Your task to perform on an android device: Search for sushi restaurants on Maps Image 0: 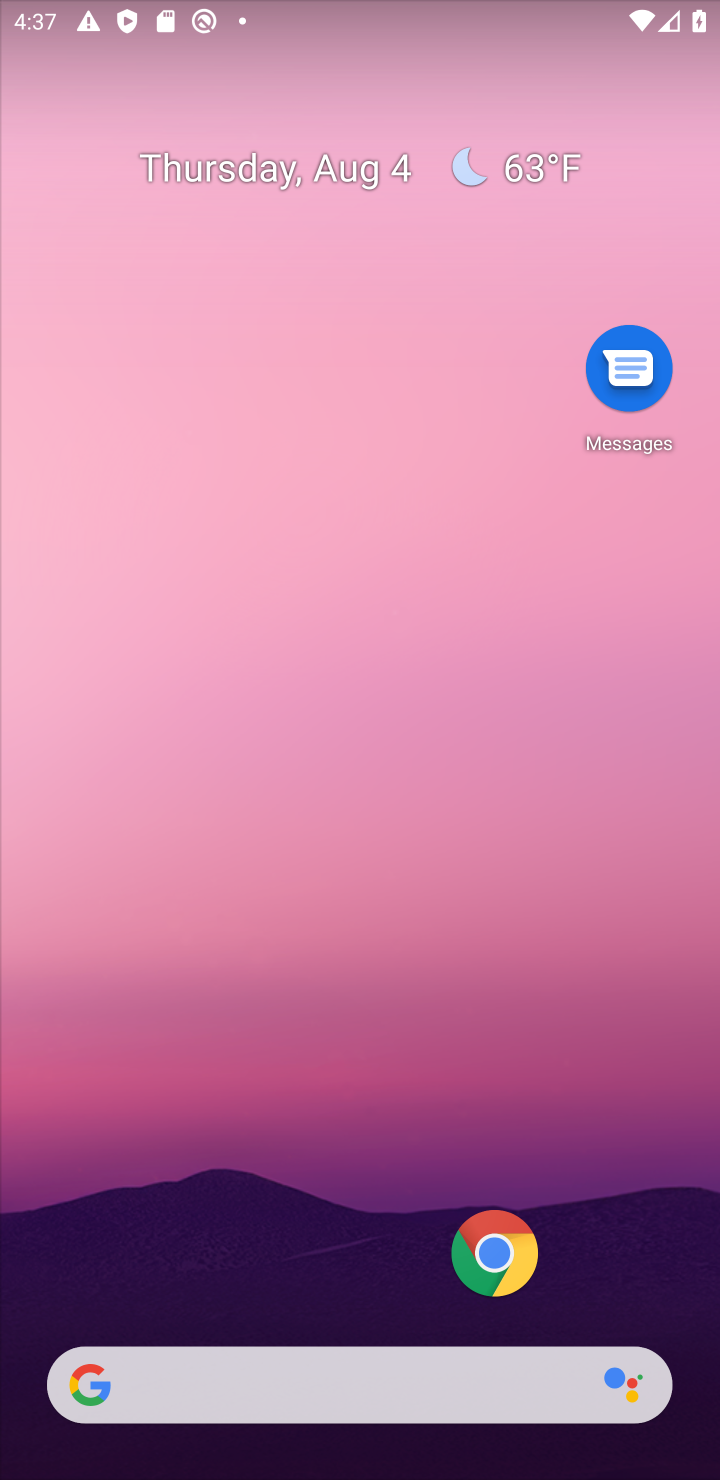
Step 0: drag from (297, 960) to (195, 104)
Your task to perform on an android device: Search for sushi restaurants on Maps Image 1: 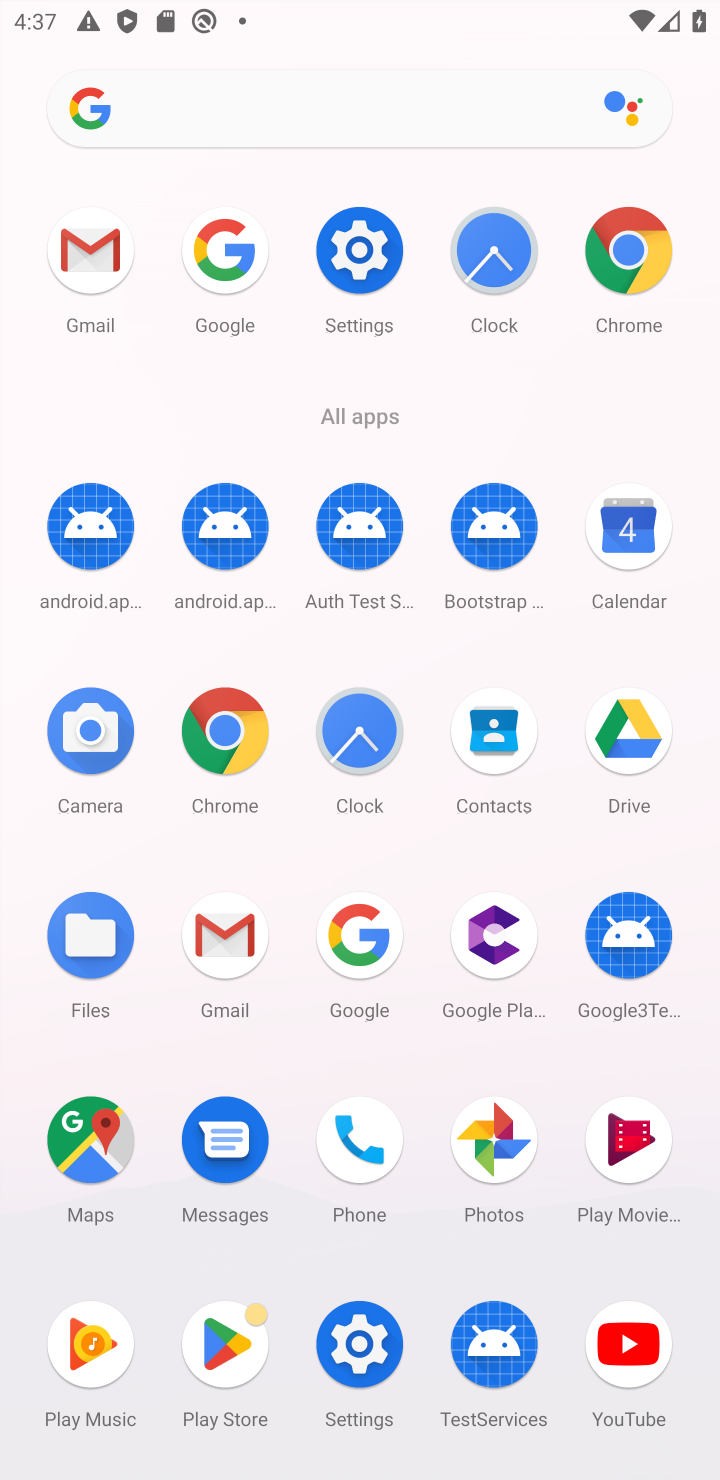
Step 1: click (89, 1141)
Your task to perform on an android device: Search for sushi restaurants on Maps Image 2: 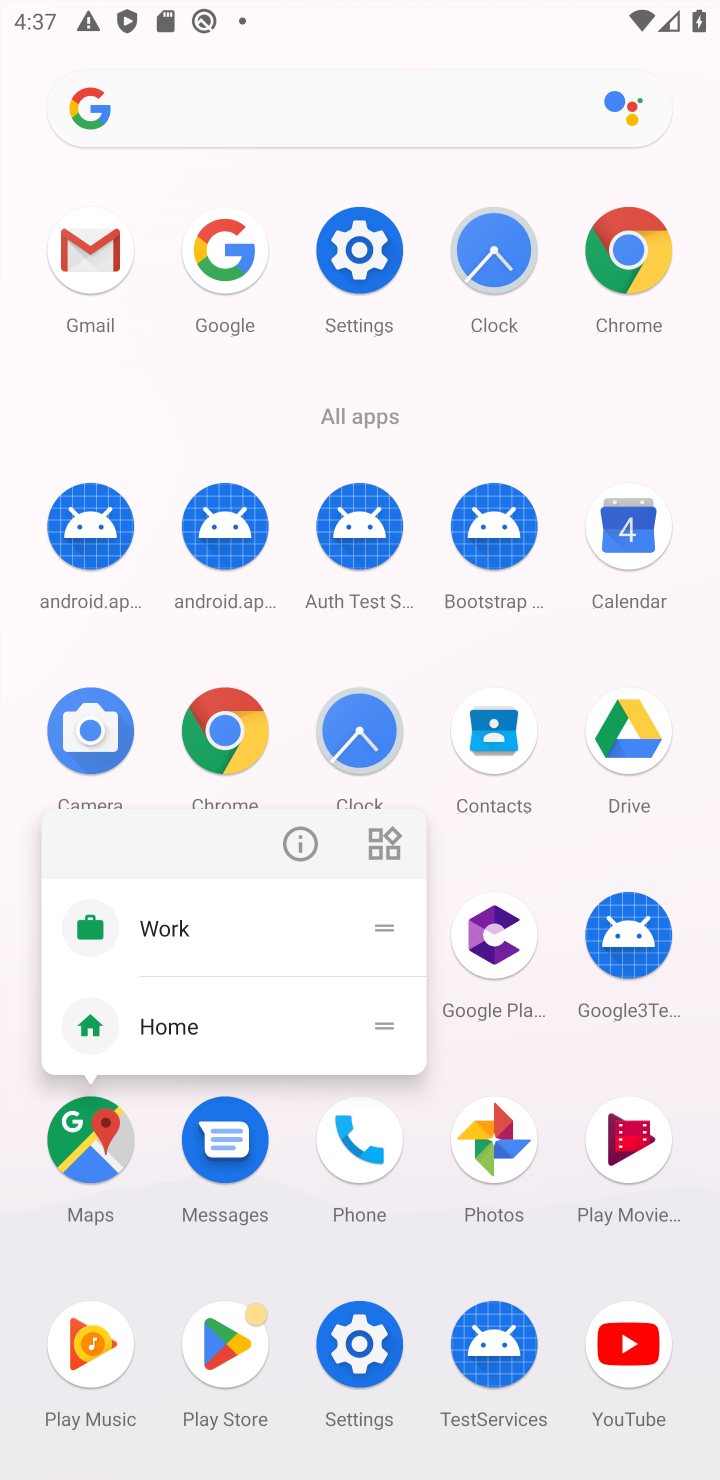
Step 2: click (89, 1141)
Your task to perform on an android device: Search for sushi restaurants on Maps Image 3: 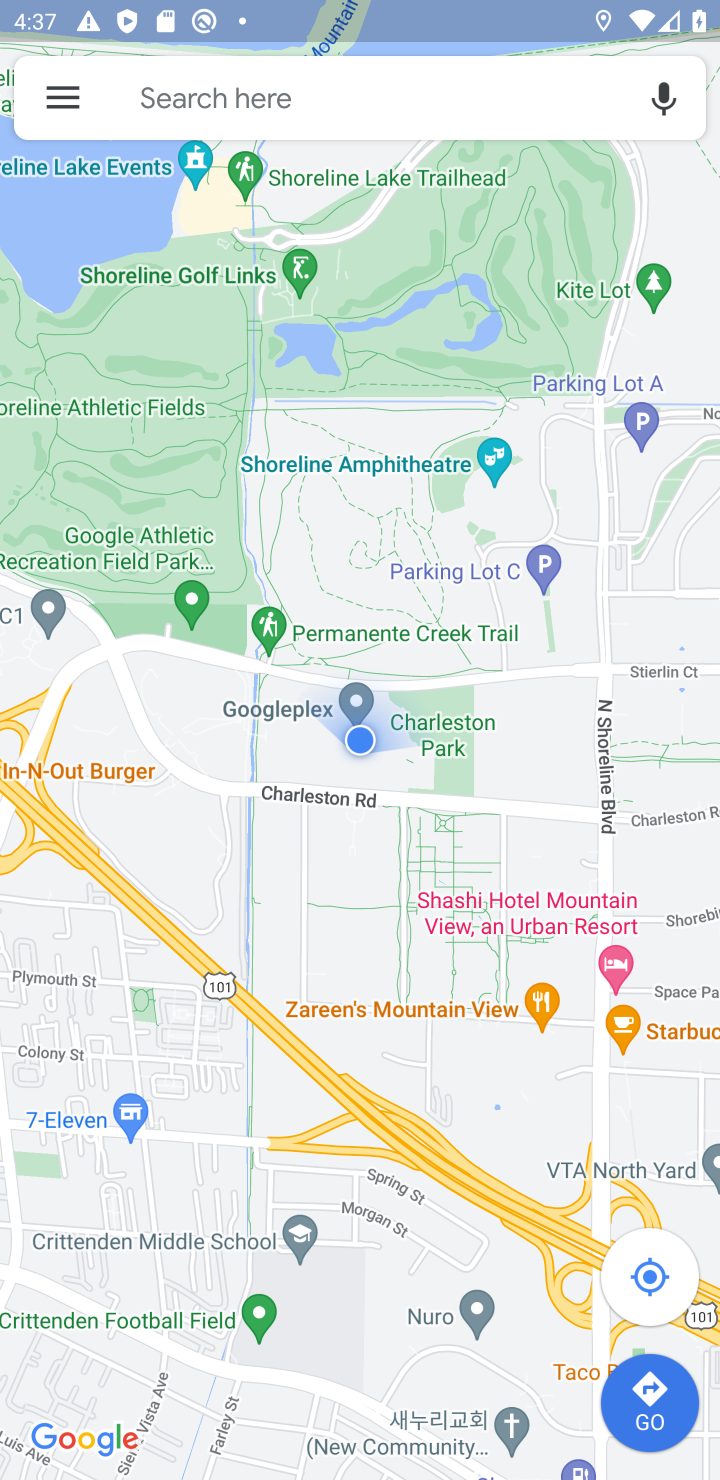
Step 3: click (259, 109)
Your task to perform on an android device: Search for sushi restaurants on Maps Image 4: 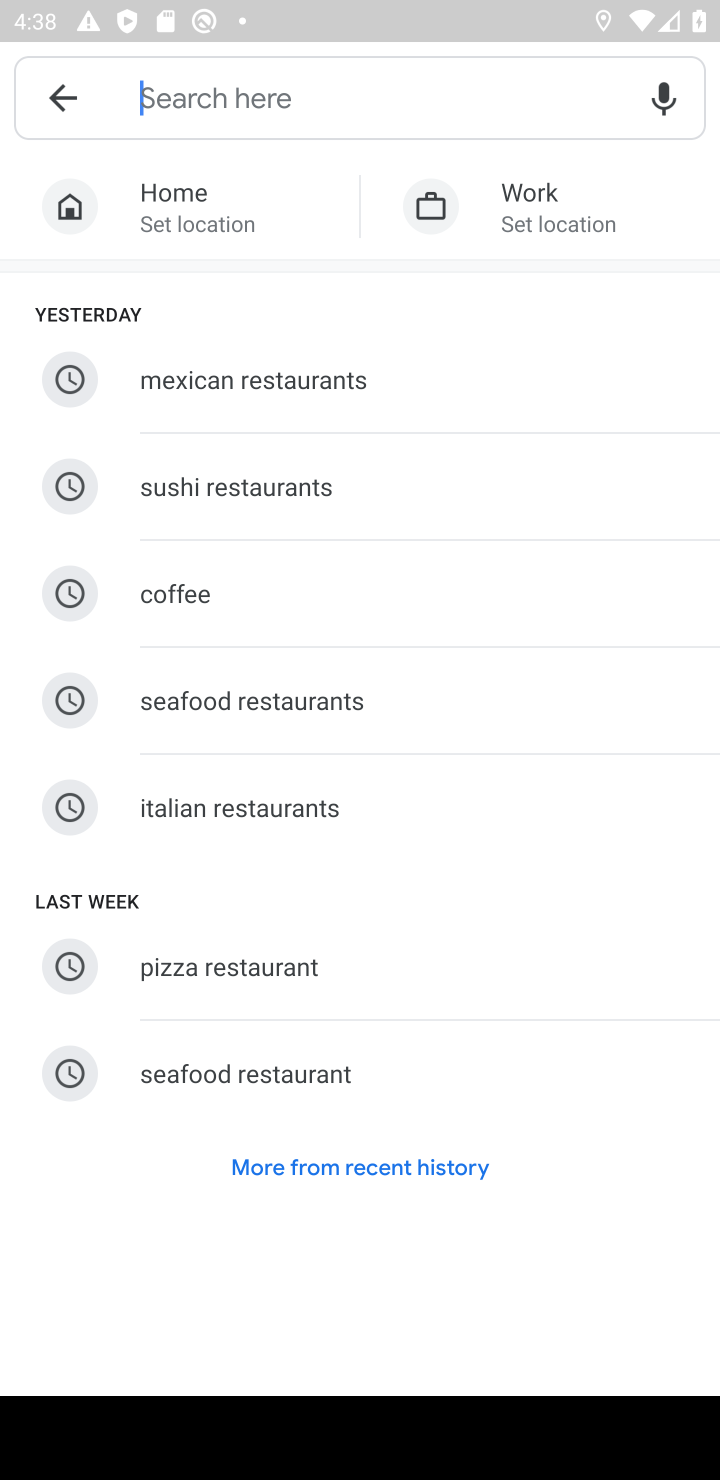
Step 4: click (200, 504)
Your task to perform on an android device: Search for sushi restaurants on Maps Image 5: 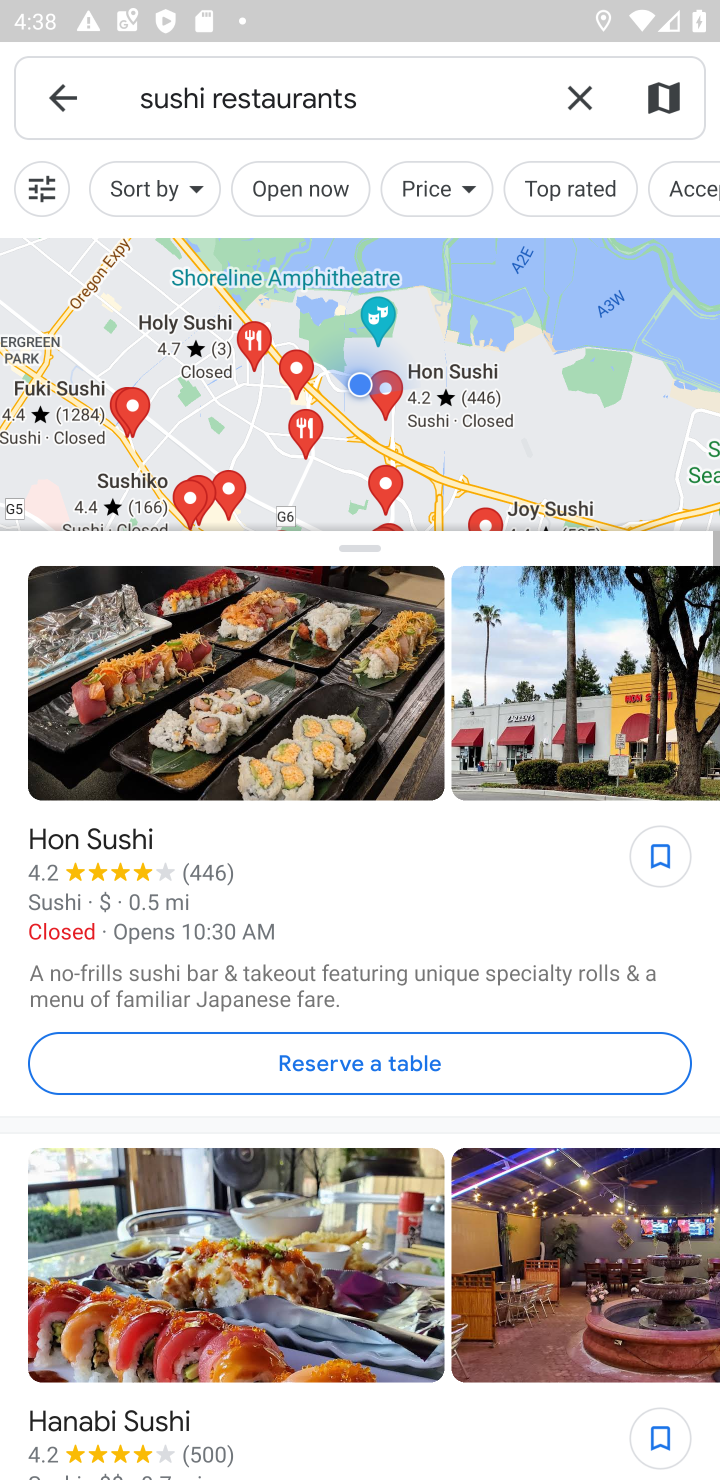
Step 5: task complete